Your task to perform on an android device: What's on my calendar today? Image 0: 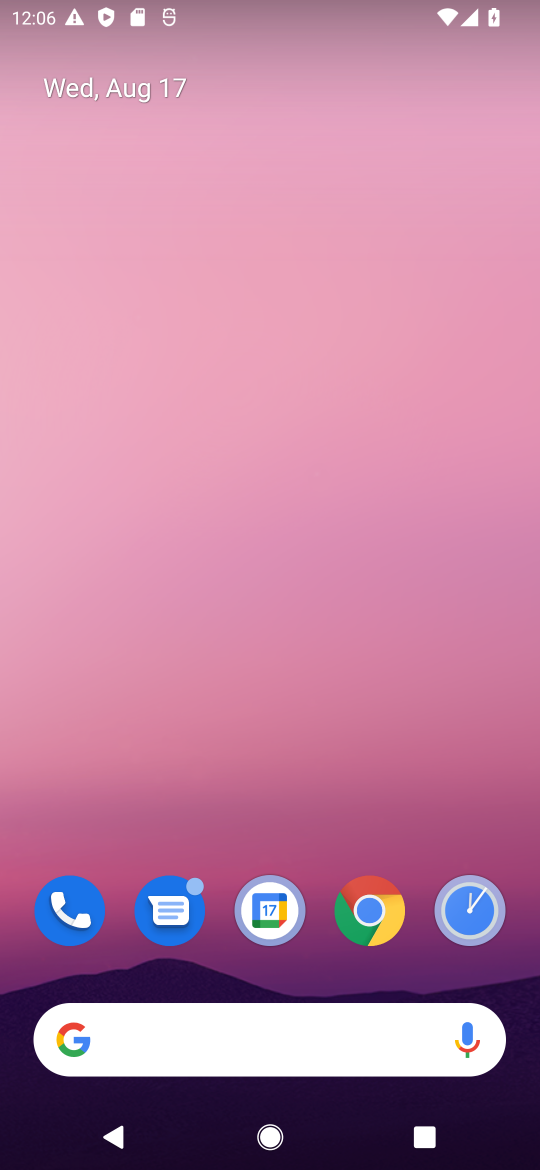
Step 0: click (281, 907)
Your task to perform on an android device: What's on my calendar today? Image 1: 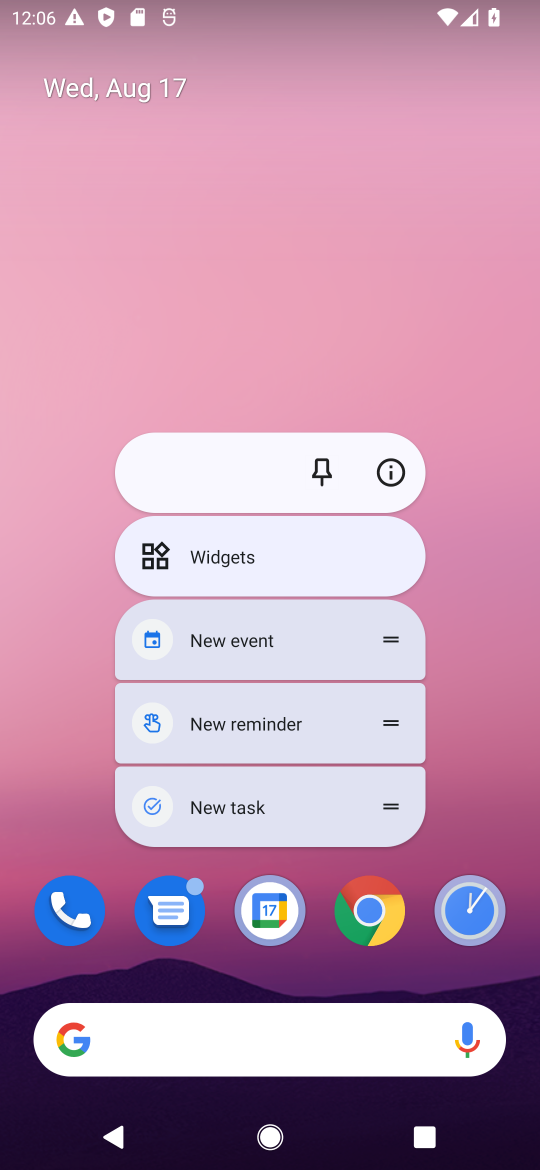
Step 1: click (272, 915)
Your task to perform on an android device: What's on my calendar today? Image 2: 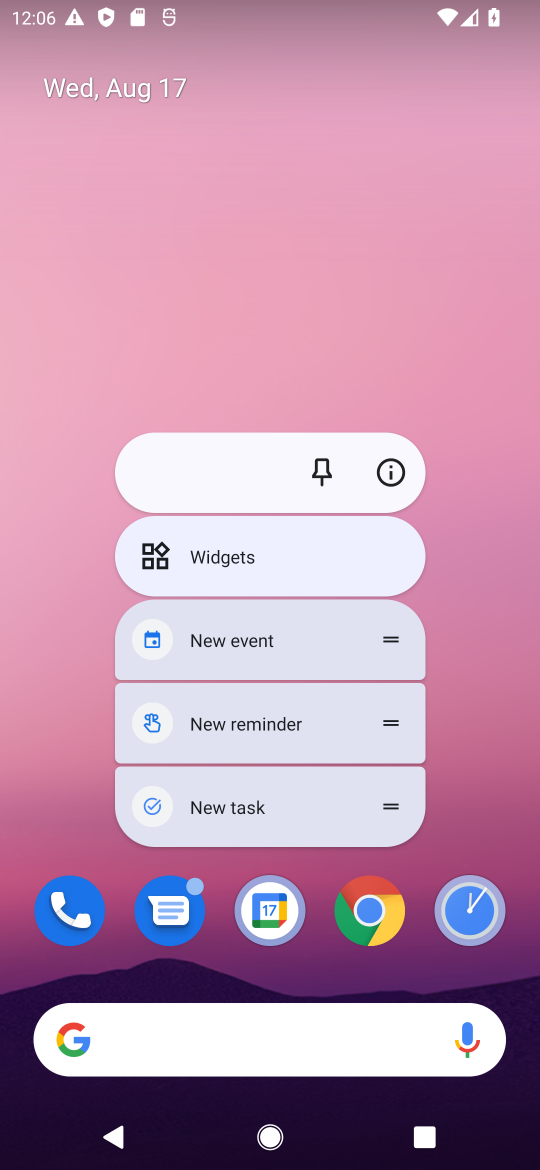
Step 2: click (272, 915)
Your task to perform on an android device: What's on my calendar today? Image 3: 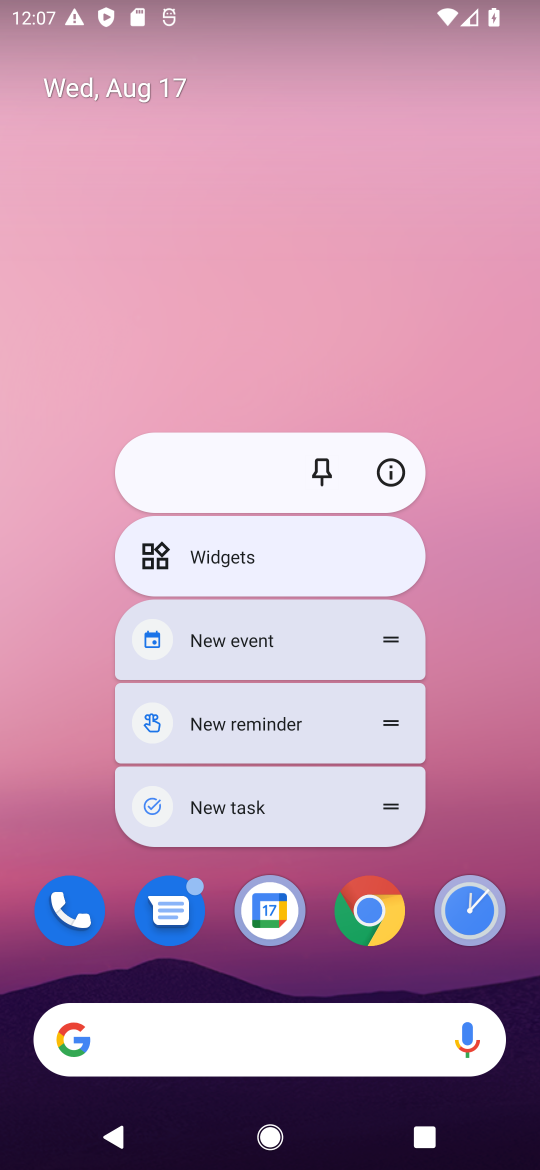
Step 3: click (273, 893)
Your task to perform on an android device: What's on my calendar today? Image 4: 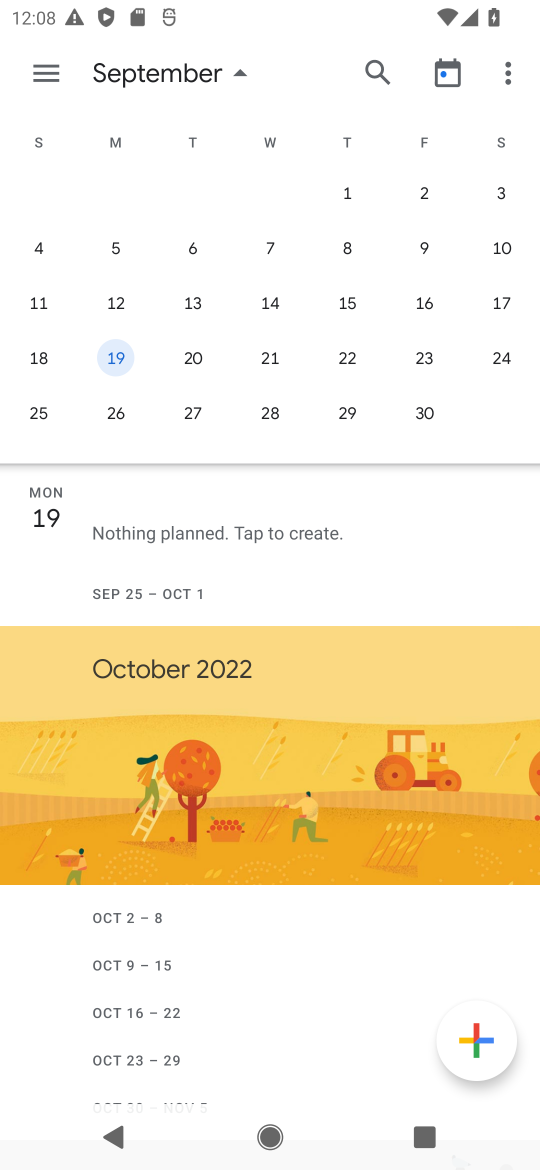
Step 4: drag from (32, 357) to (536, 369)
Your task to perform on an android device: What's on my calendar today? Image 5: 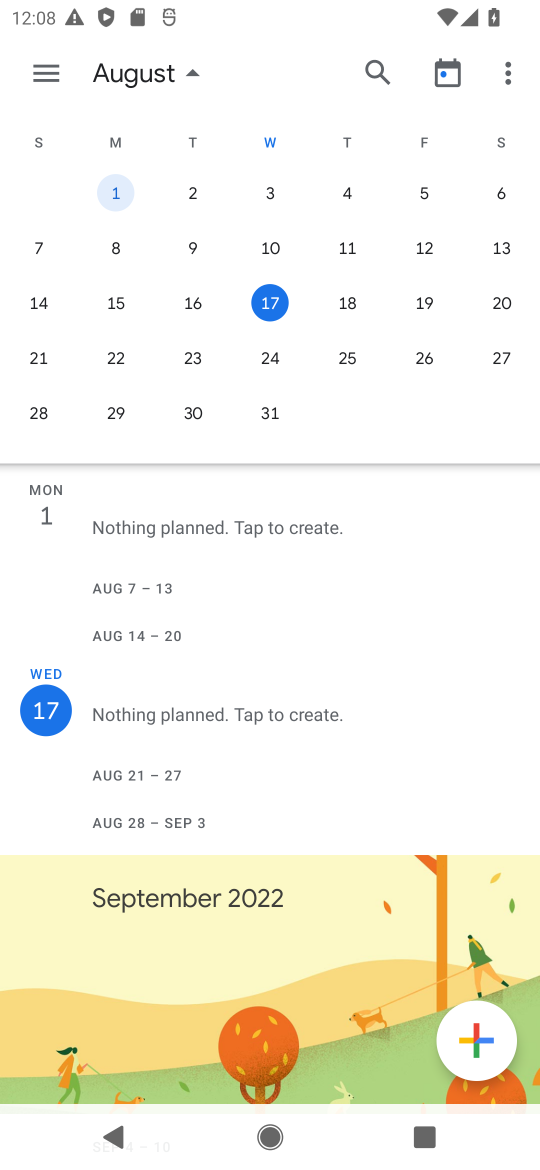
Step 5: click (193, 302)
Your task to perform on an android device: What's on my calendar today? Image 6: 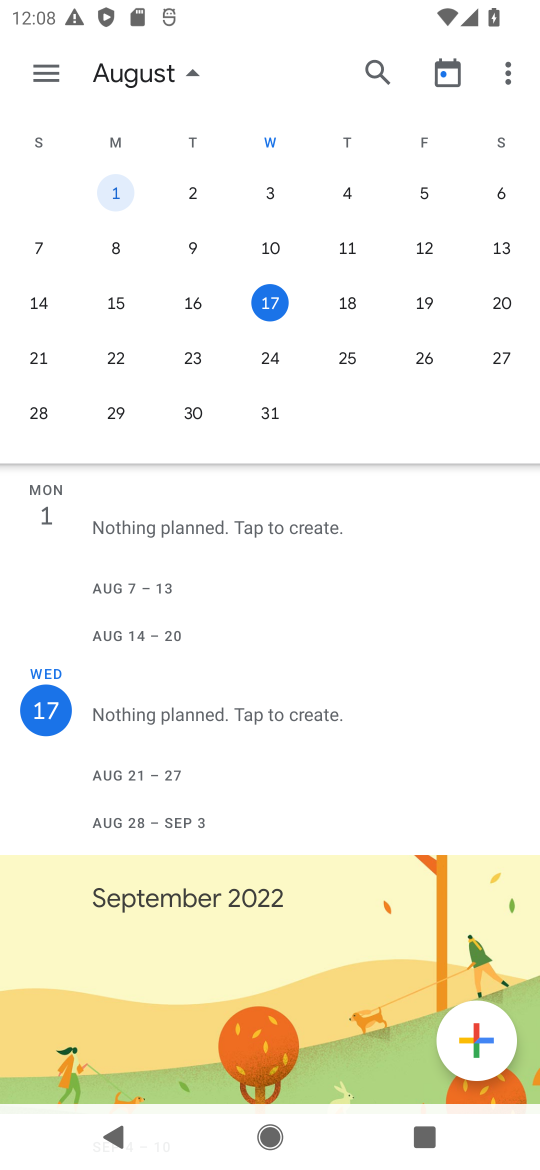
Step 6: click (196, 289)
Your task to perform on an android device: What's on my calendar today? Image 7: 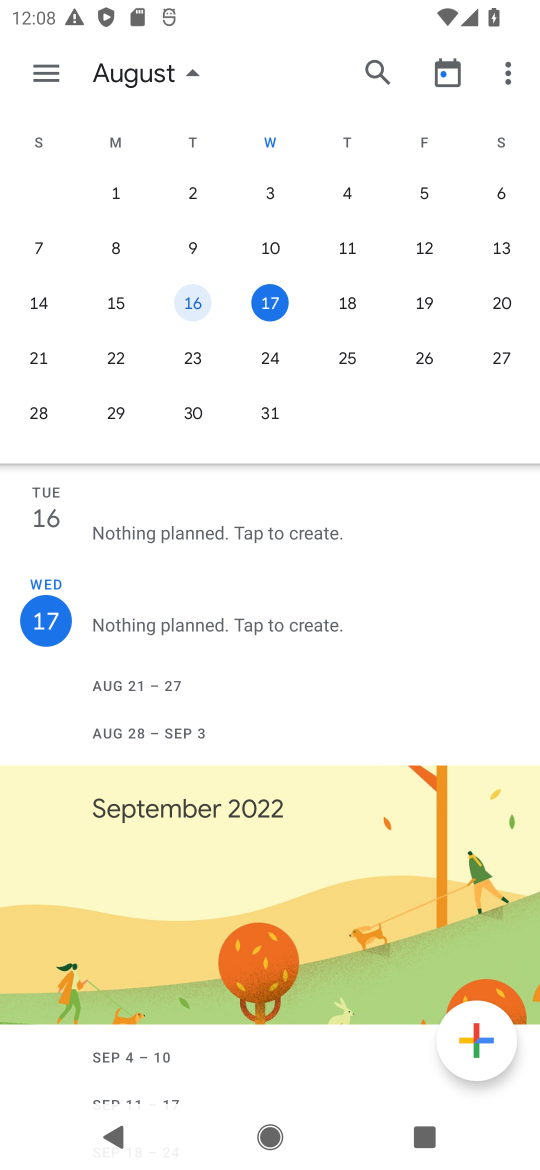
Step 7: click (270, 293)
Your task to perform on an android device: What's on my calendar today? Image 8: 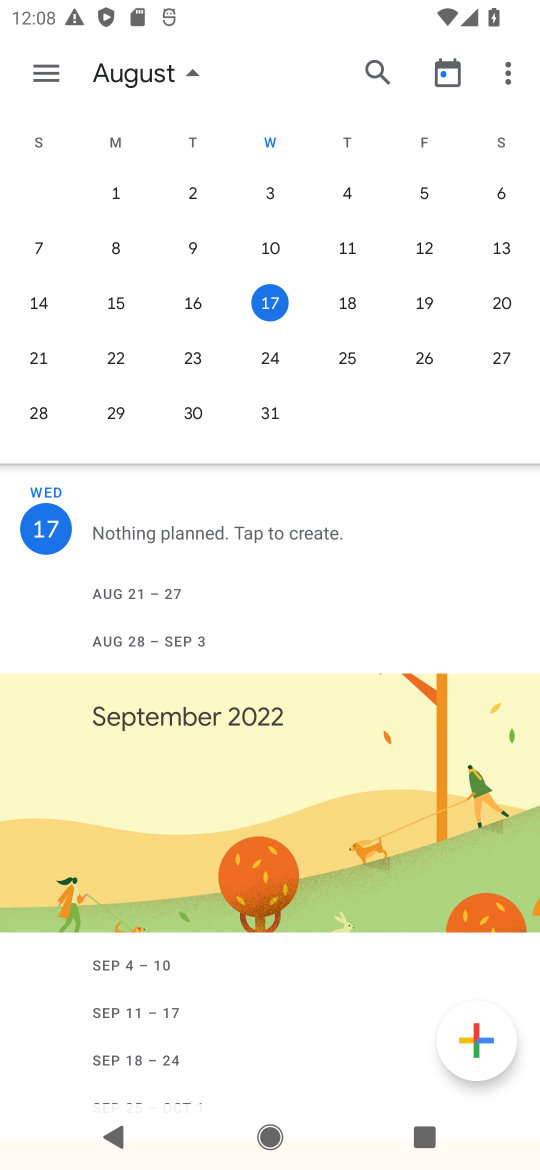
Step 8: task complete